Your task to perform on an android device: turn off location history Image 0: 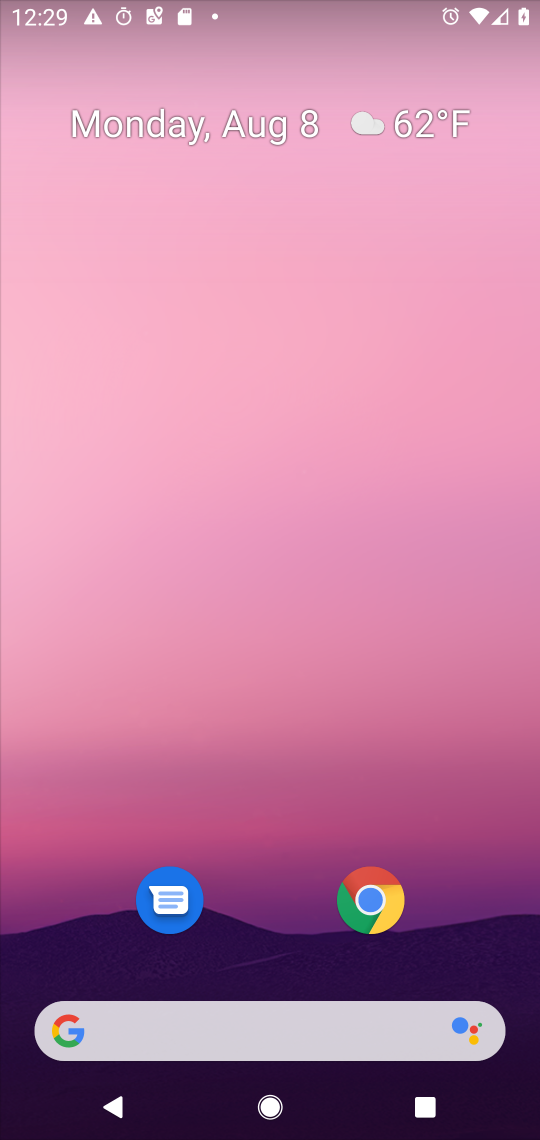
Step 0: press home button
Your task to perform on an android device: turn off location history Image 1: 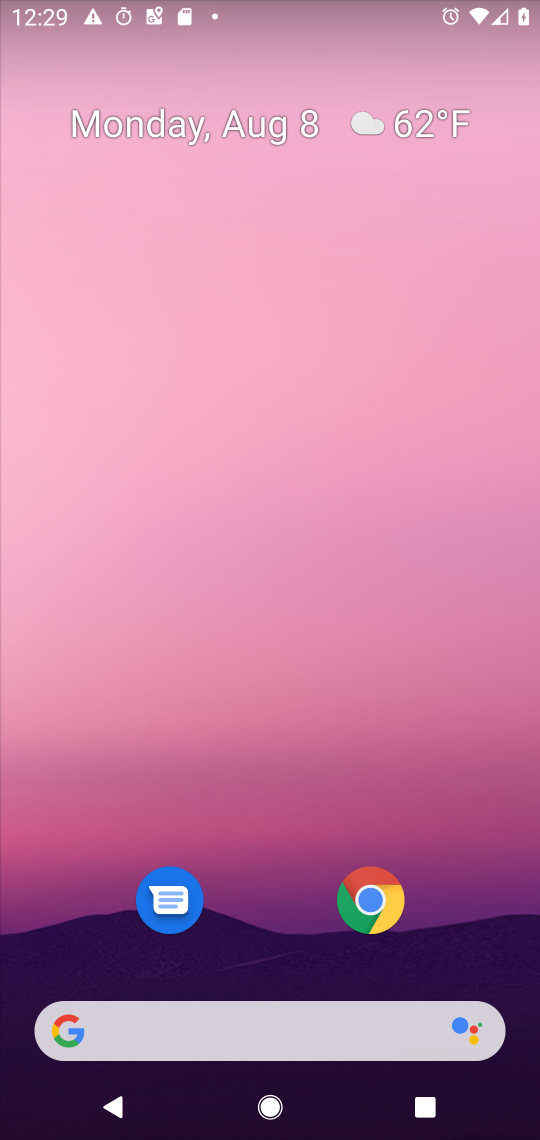
Step 1: drag from (279, 959) to (325, 288)
Your task to perform on an android device: turn off location history Image 2: 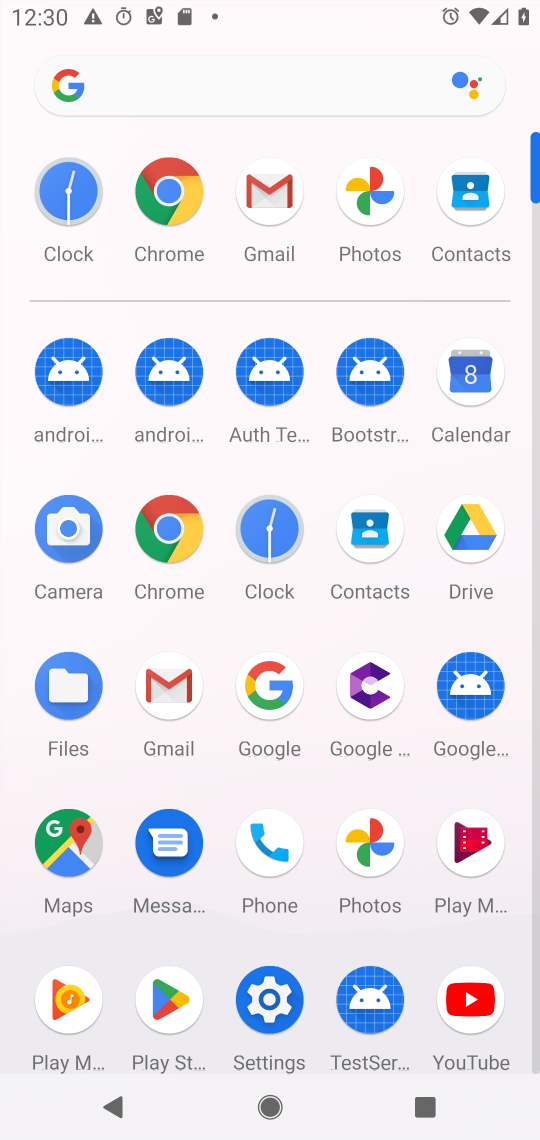
Step 2: press home button
Your task to perform on an android device: turn off location history Image 3: 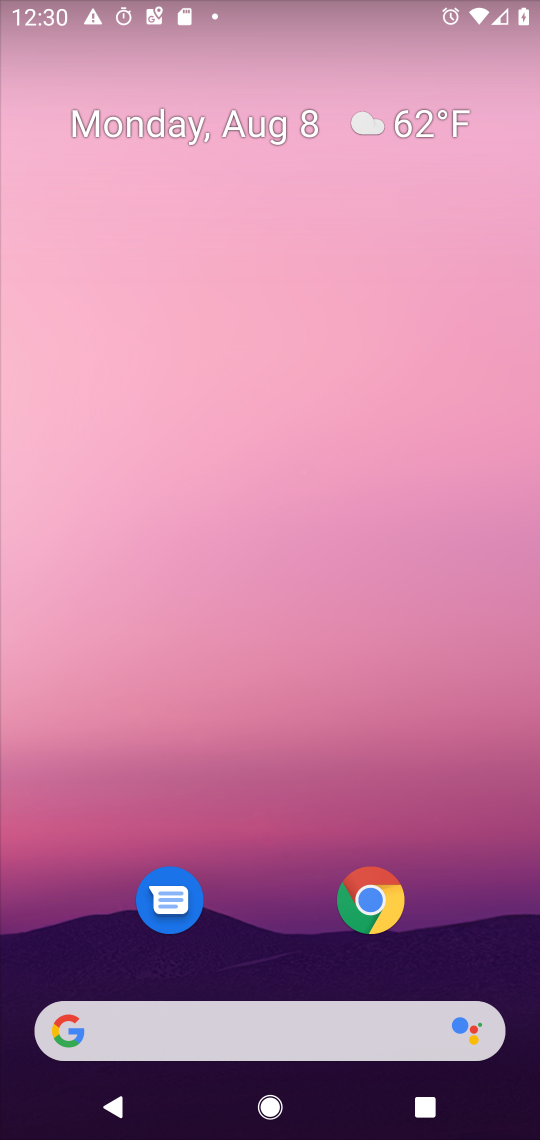
Step 3: drag from (306, 978) to (298, 421)
Your task to perform on an android device: turn off location history Image 4: 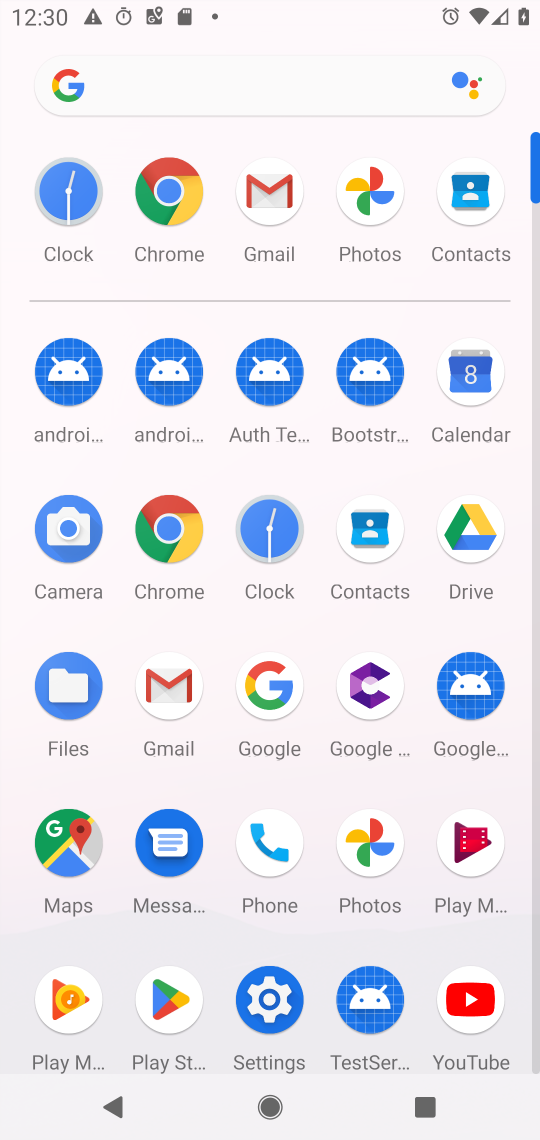
Step 4: click (259, 1006)
Your task to perform on an android device: turn off location history Image 5: 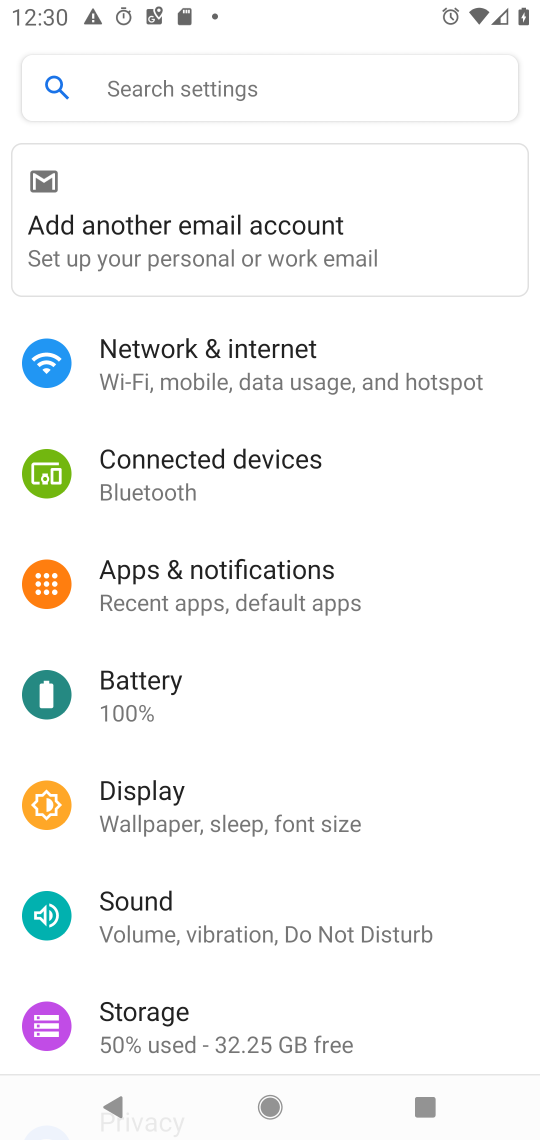
Step 5: drag from (215, 984) to (222, 291)
Your task to perform on an android device: turn off location history Image 6: 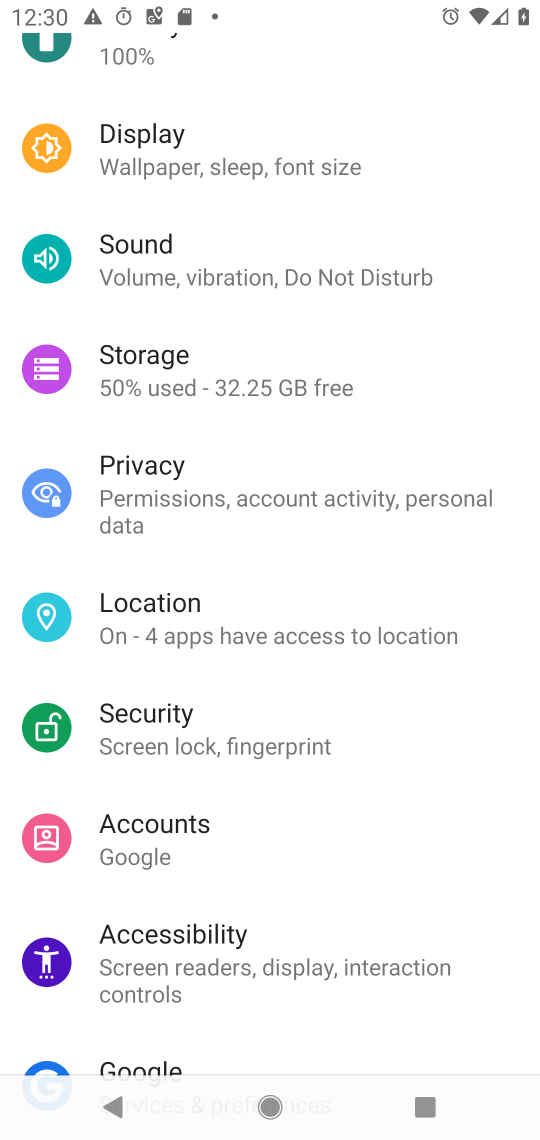
Step 6: click (210, 601)
Your task to perform on an android device: turn off location history Image 7: 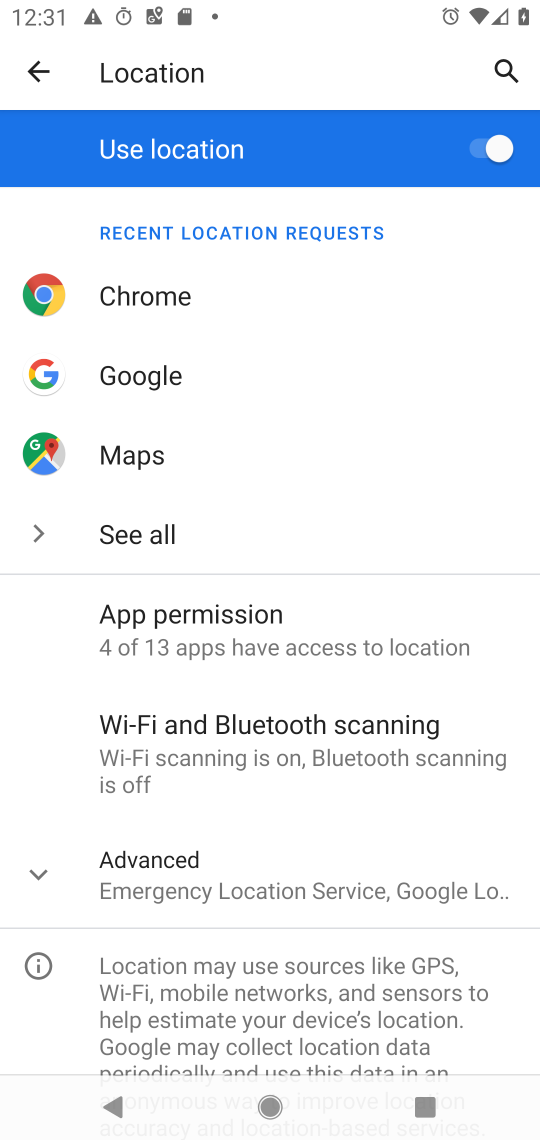
Step 7: click (72, 872)
Your task to perform on an android device: turn off location history Image 8: 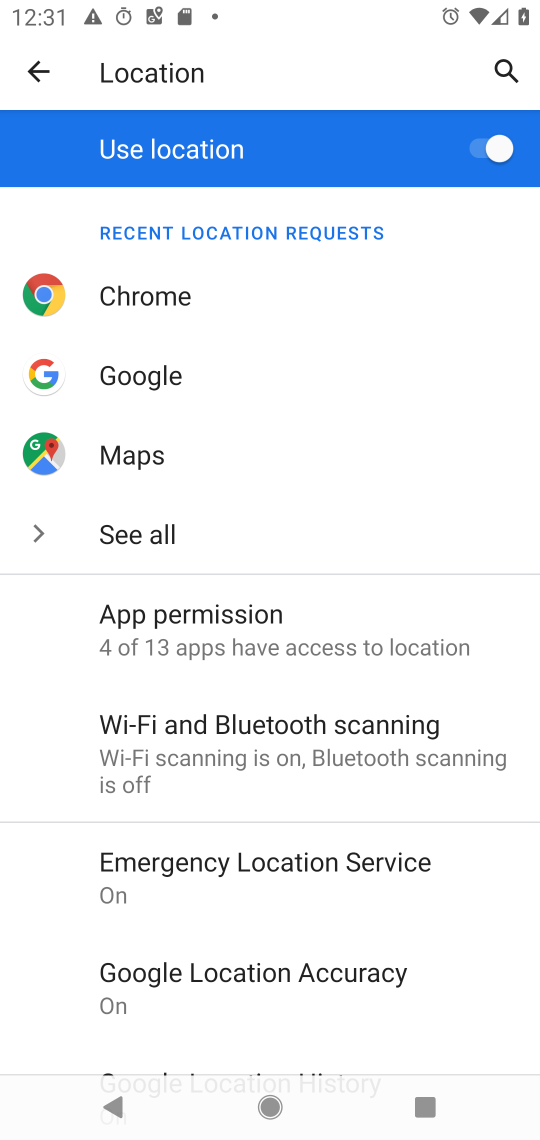
Step 8: drag from (242, 972) to (273, 369)
Your task to perform on an android device: turn off location history Image 9: 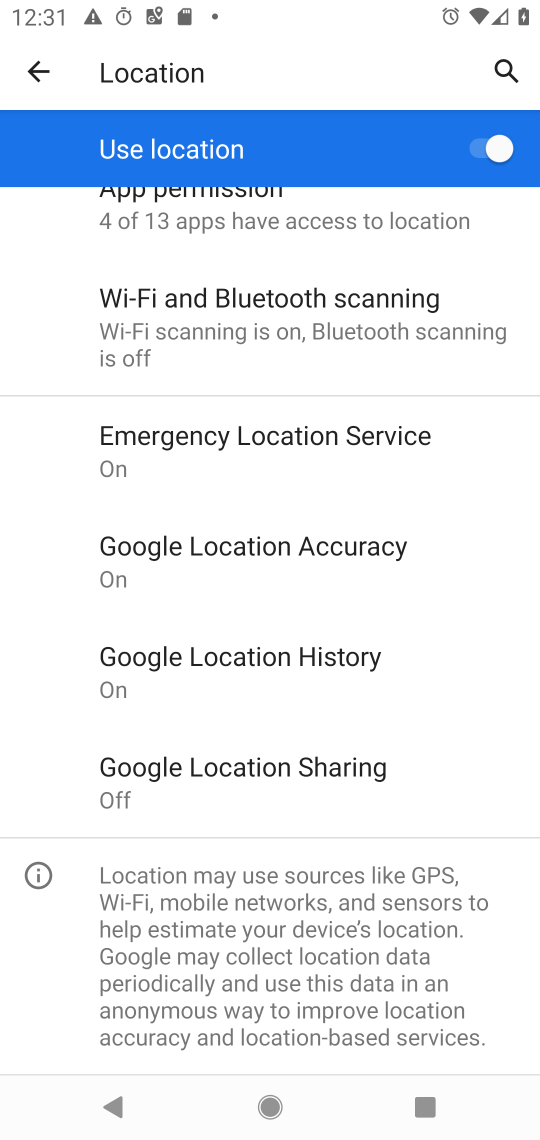
Step 9: click (234, 663)
Your task to perform on an android device: turn off location history Image 10: 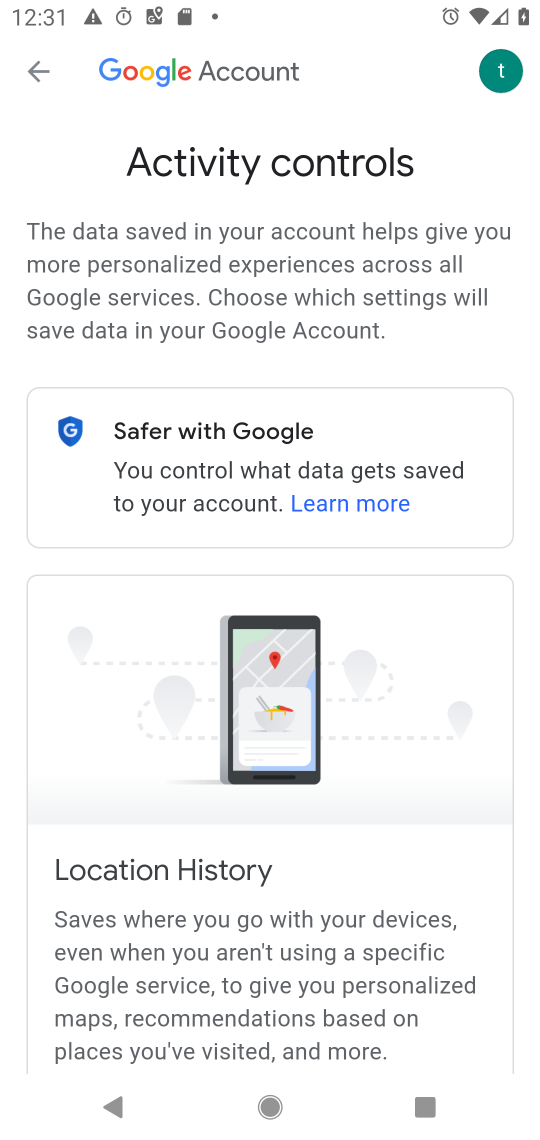
Step 10: drag from (320, 949) to (349, 504)
Your task to perform on an android device: turn off location history Image 11: 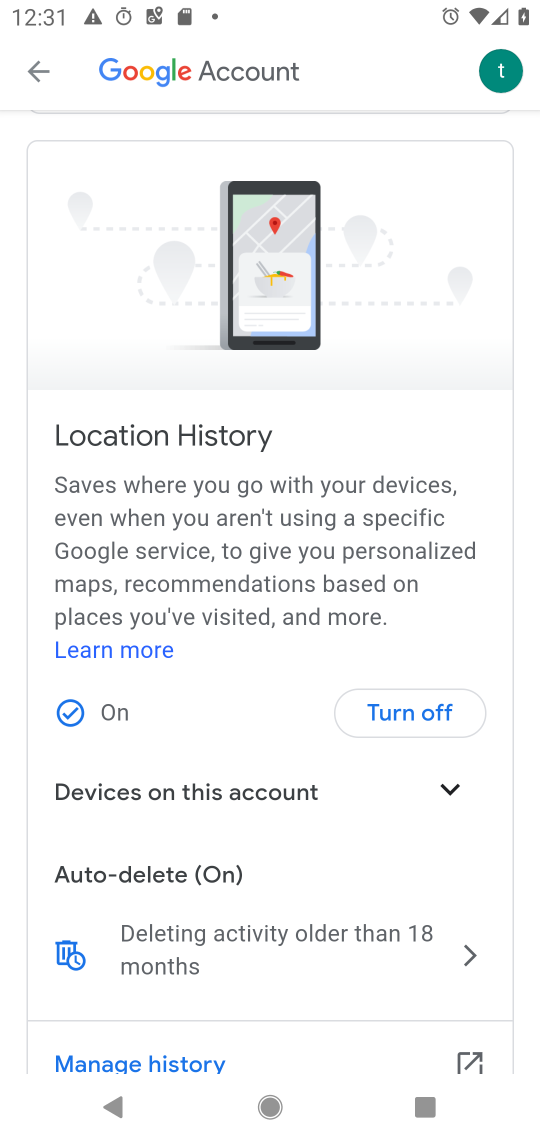
Step 11: click (438, 705)
Your task to perform on an android device: turn off location history Image 12: 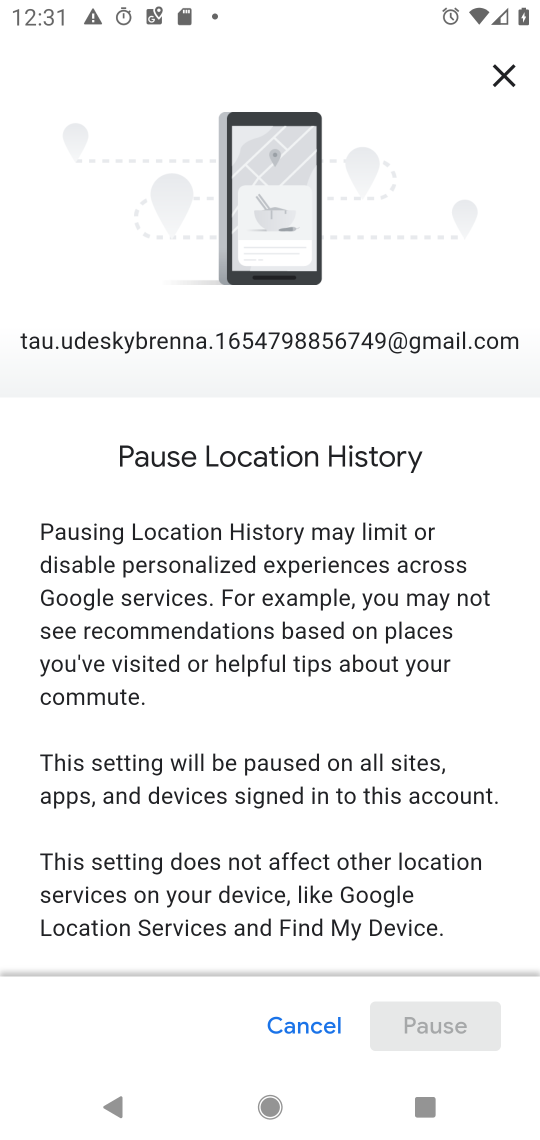
Step 12: click (438, 705)
Your task to perform on an android device: turn off location history Image 13: 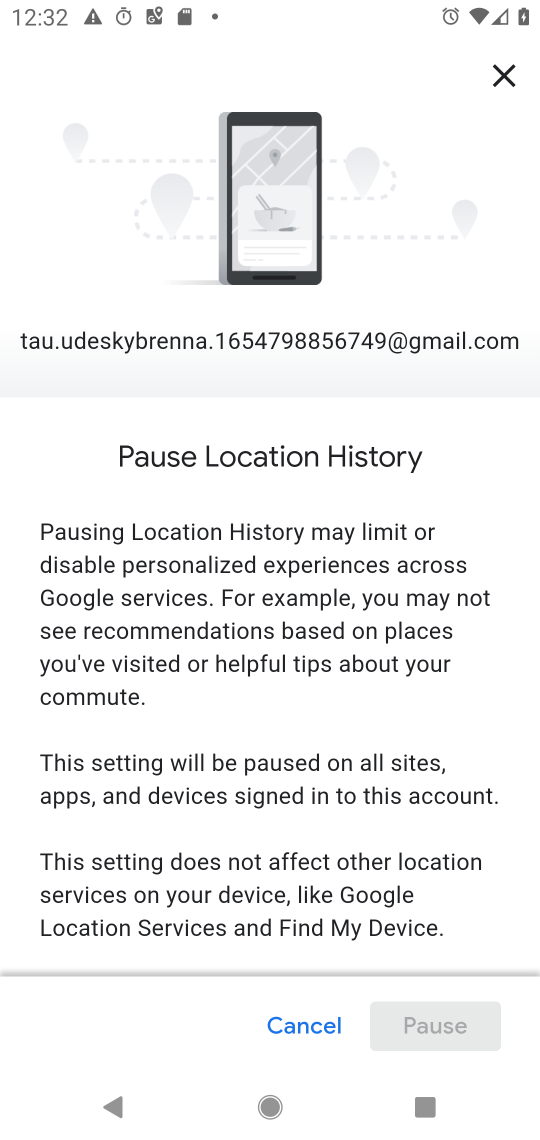
Step 13: drag from (382, 939) to (417, 620)
Your task to perform on an android device: turn off location history Image 14: 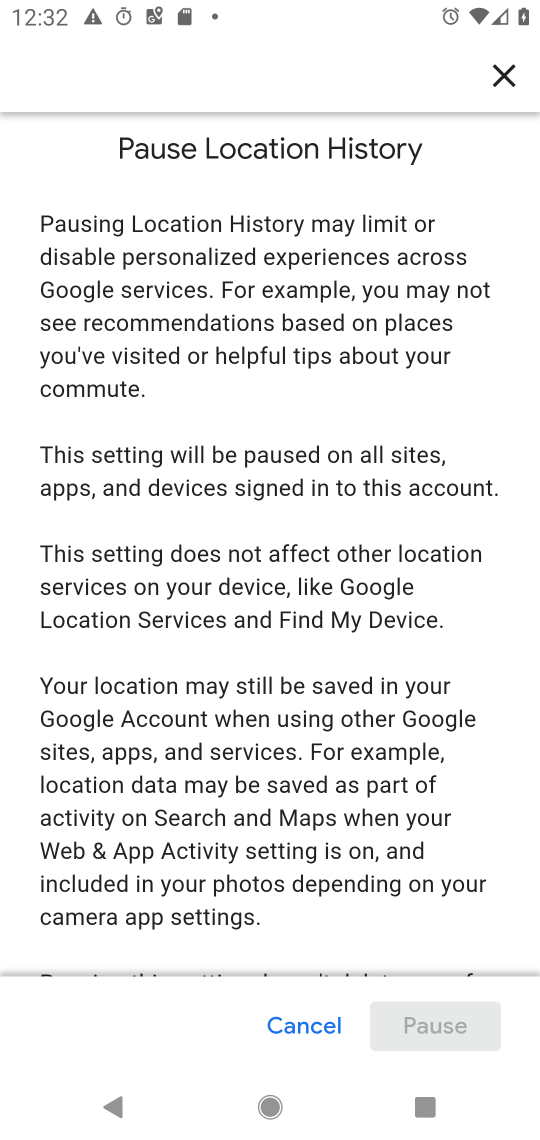
Step 14: drag from (393, 931) to (438, 529)
Your task to perform on an android device: turn off location history Image 15: 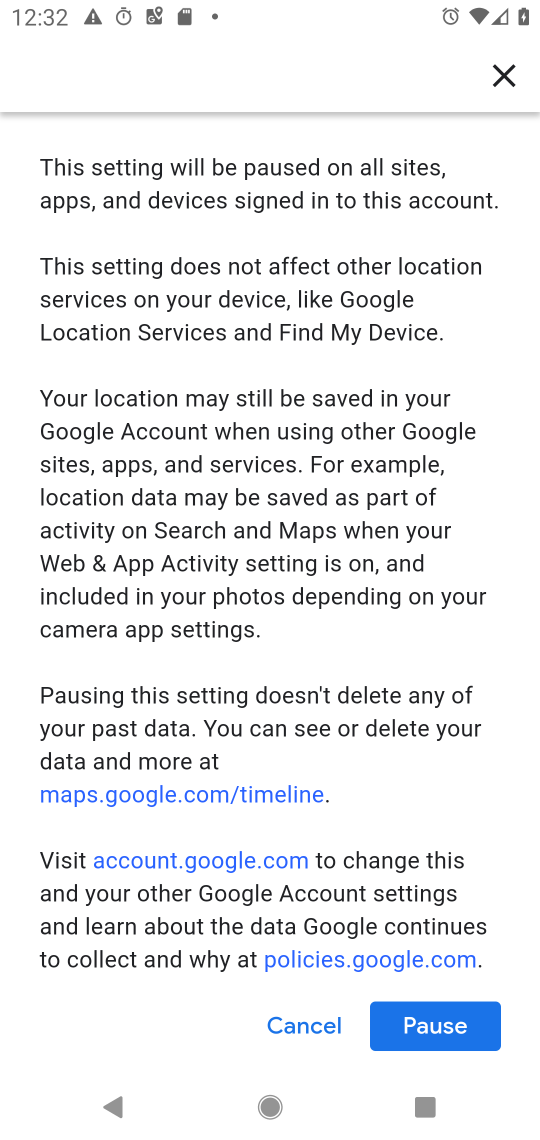
Step 15: click (437, 1035)
Your task to perform on an android device: turn off location history Image 16: 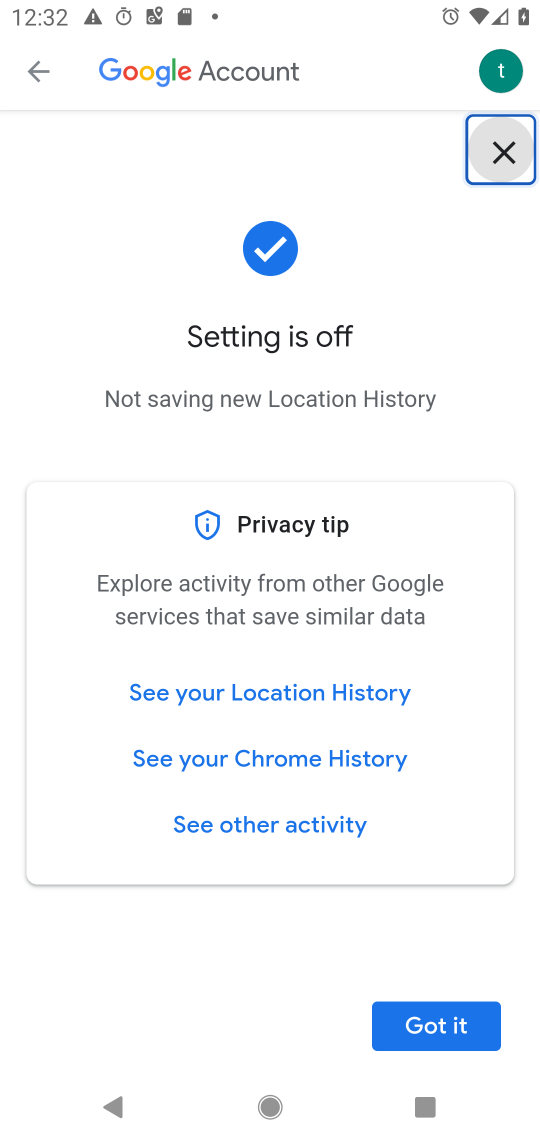
Step 16: click (430, 1014)
Your task to perform on an android device: turn off location history Image 17: 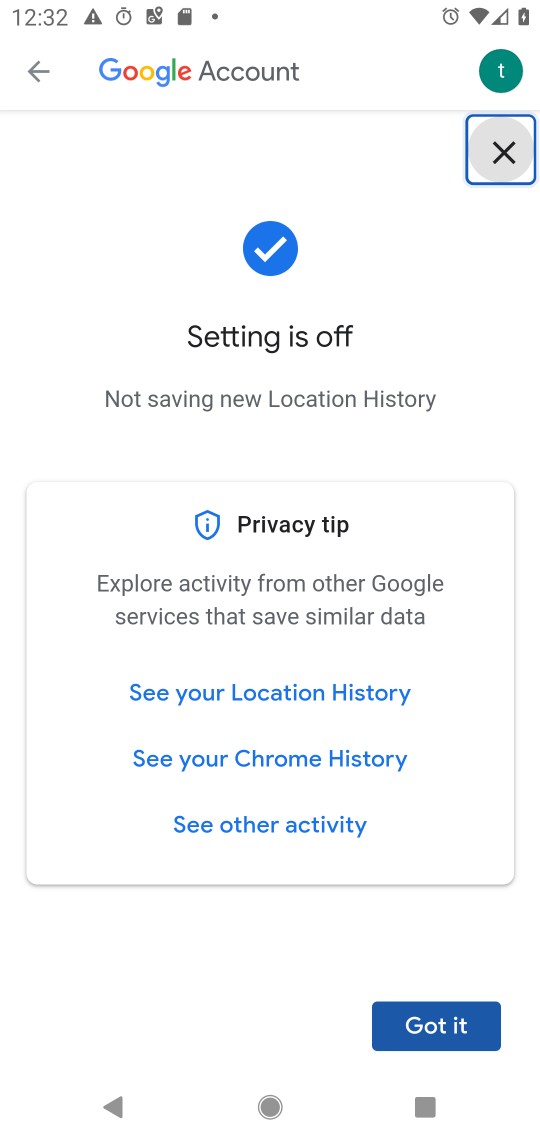
Step 17: task complete